Your task to perform on an android device: Open Wikipedia Image 0: 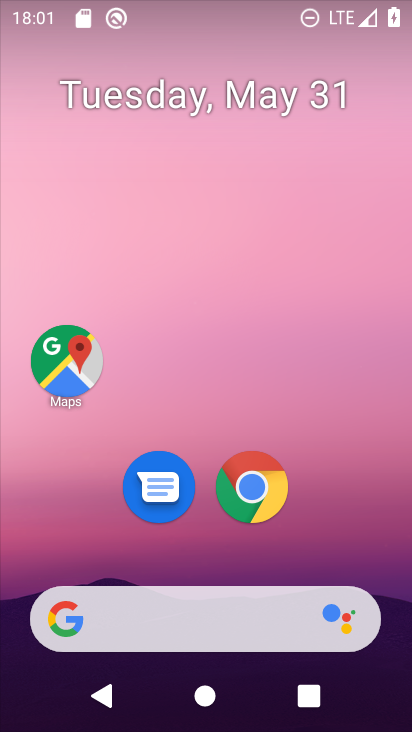
Step 0: click (250, 490)
Your task to perform on an android device: Open Wikipedia Image 1: 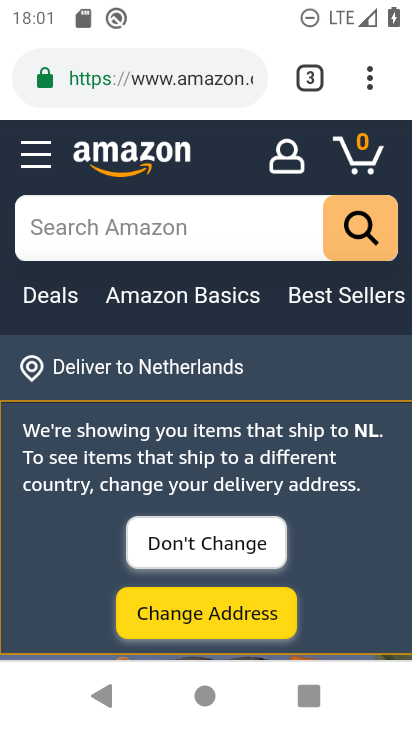
Step 1: click (373, 75)
Your task to perform on an android device: Open Wikipedia Image 2: 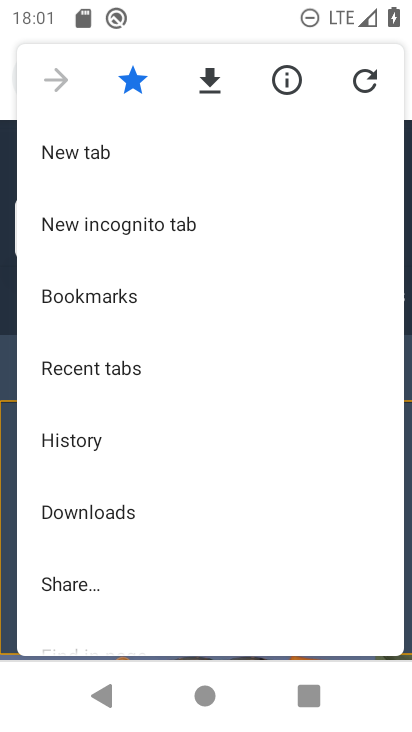
Step 2: click (94, 148)
Your task to perform on an android device: Open Wikipedia Image 3: 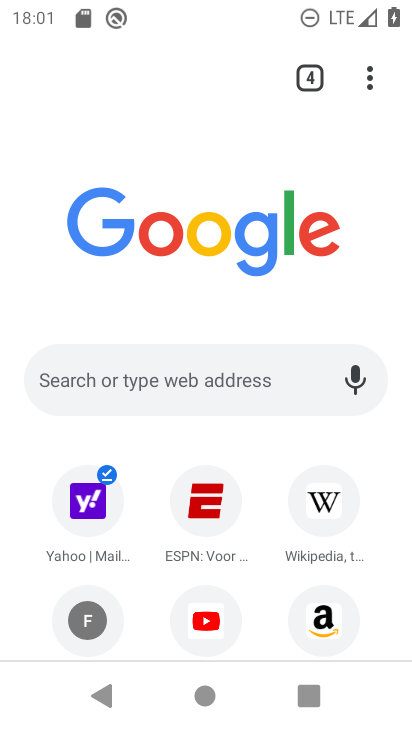
Step 3: click (320, 513)
Your task to perform on an android device: Open Wikipedia Image 4: 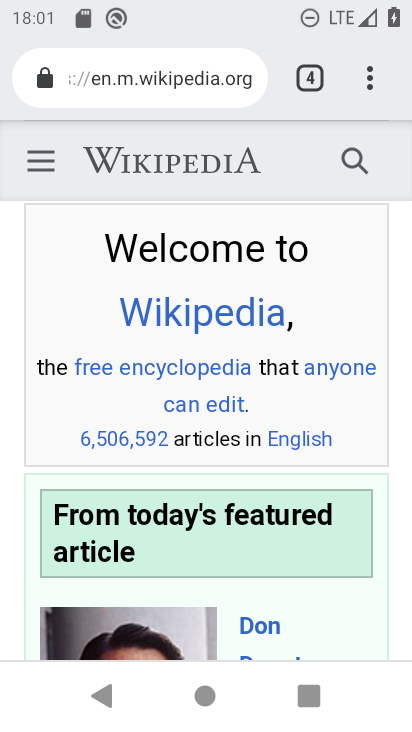
Step 4: task complete